Your task to perform on an android device: toggle wifi Image 0: 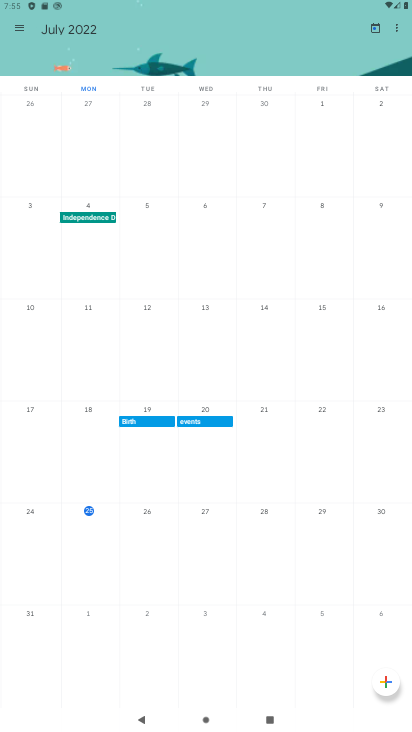
Step 0: press home button
Your task to perform on an android device: toggle wifi Image 1: 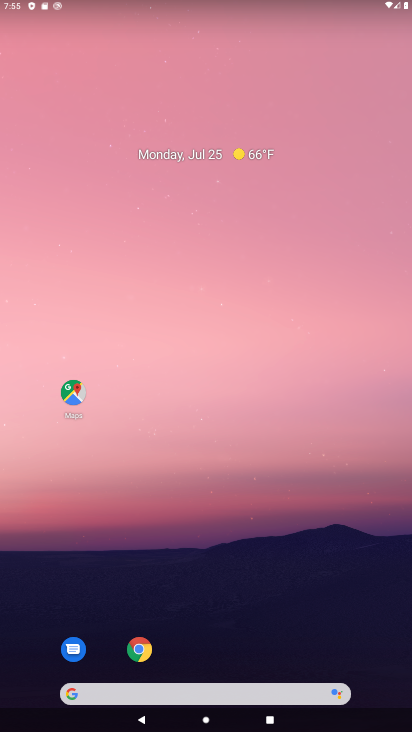
Step 1: drag from (236, 638) to (233, 111)
Your task to perform on an android device: toggle wifi Image 2: 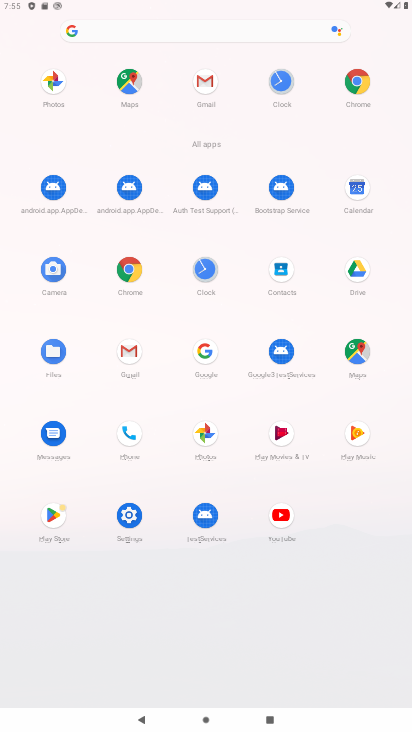
Step 2: click (121, 510)
Your task to perform on an android device: toggle wifi Image 3: 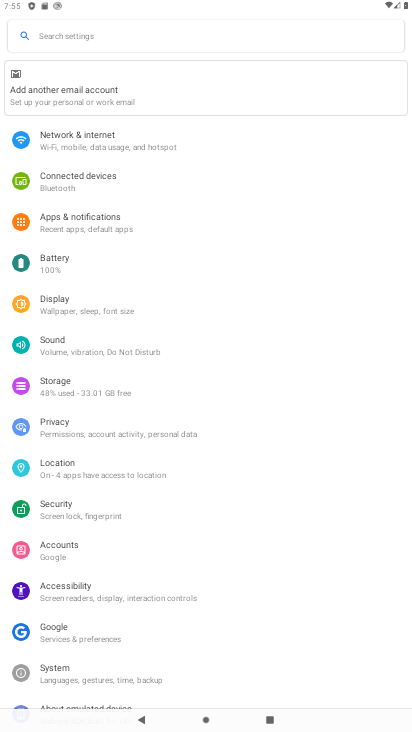
Step 3: click (171, 154)
Your task to perform on an android device: toggle wifi Image 4: 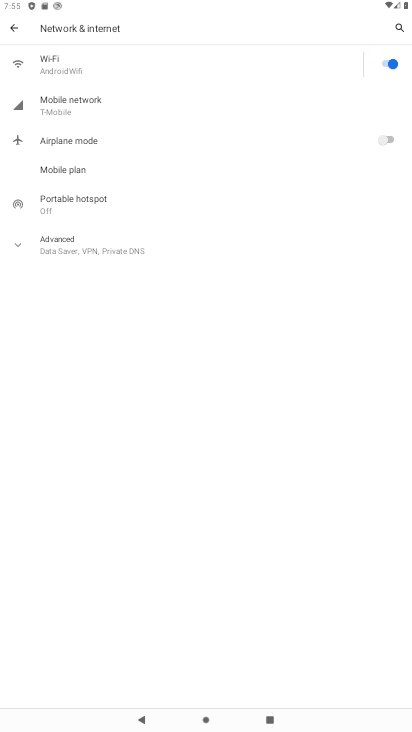
Step 4: click (386, 66)
Your task to perform on an android device: toggle wifi Image 5: 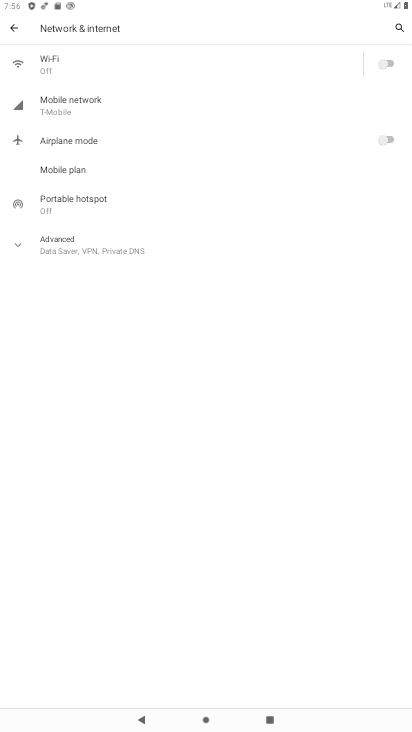
Step 5: task complete